Your task to perform on an android device: Open Yahoo.com Image 0: 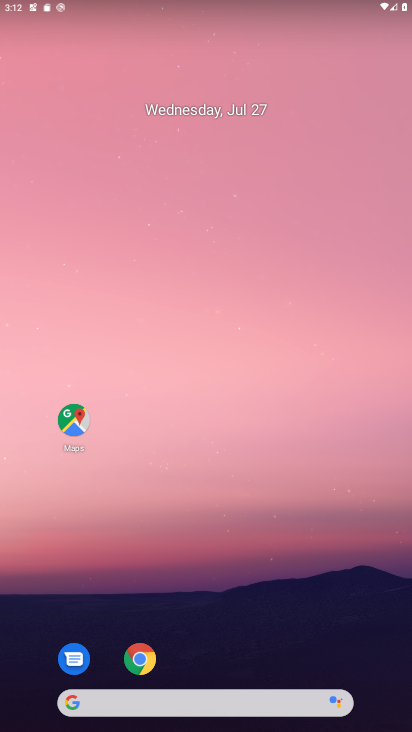
Step 0: drag from (186, 581) to (53, 55)
Your task to perform on an android device: Open Yahoo.com Image 1: 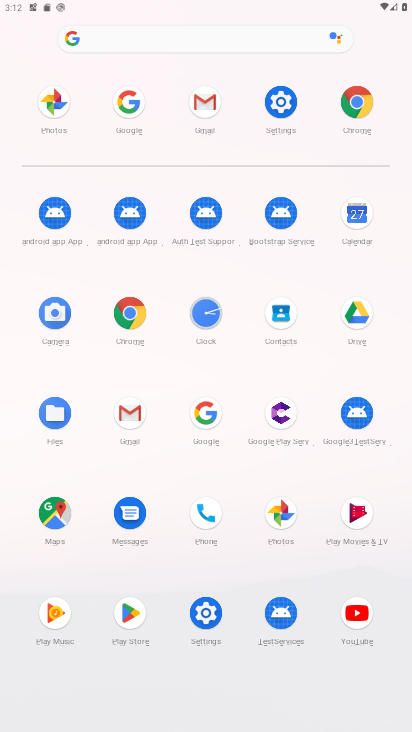
Step 1: click (355, 110)
Your task to perform on an android device: Open Yahoo.com Image 2: 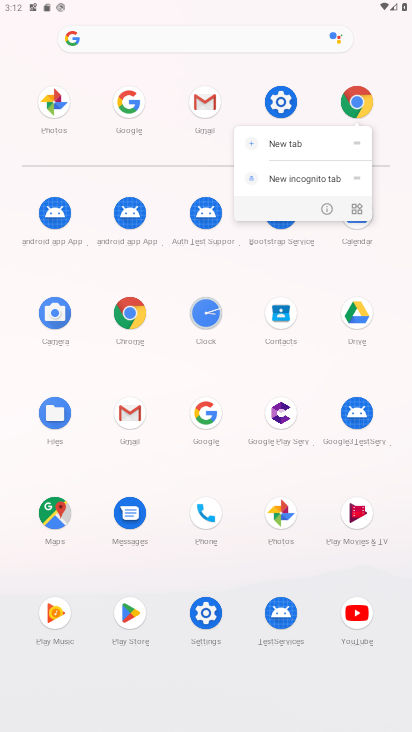
Step 2: click (355, 110)
Your task to perform on an android device: Open Yahoo.com Image 3: 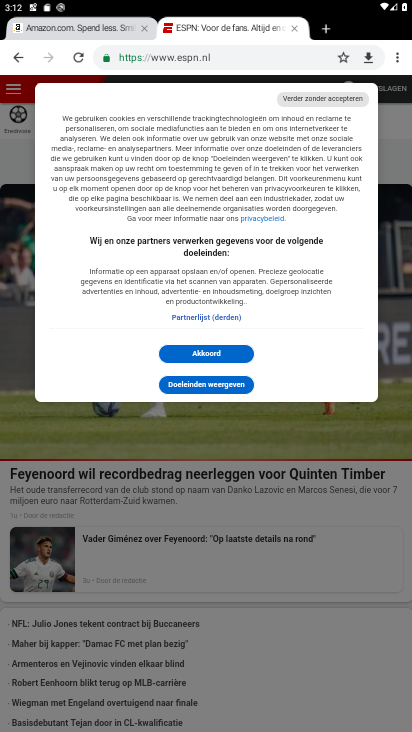
Step 3: click (21, 62)
Your task to perform on an android device: Open Yahoo.com Image 4: 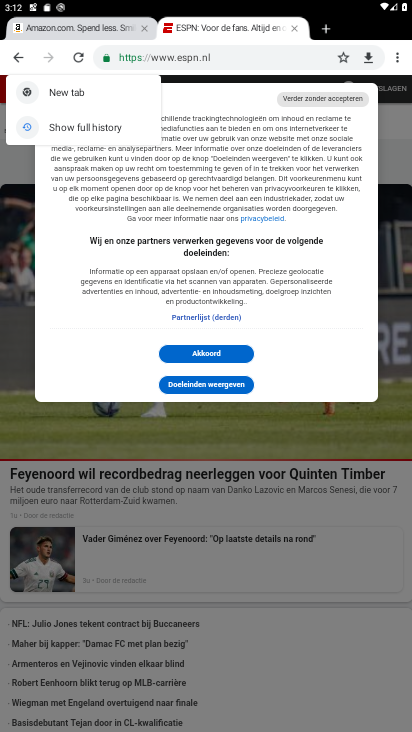
Step 4: click (20, 62)
Your task to perform on an android device: Open Yahoo.com Image 5: 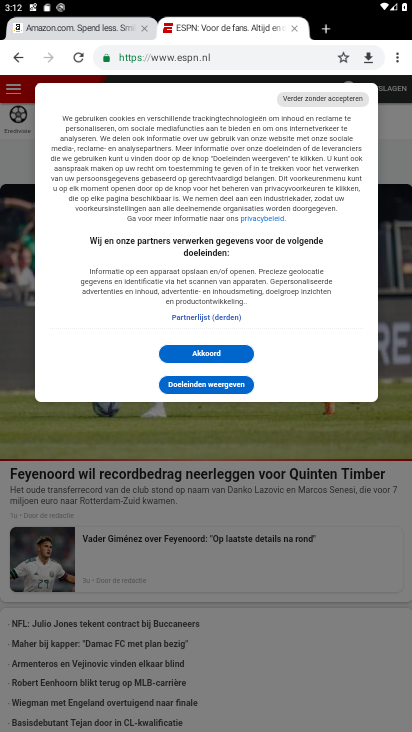
Step 5: click (16, 56)
Your task to perform on an android device: Open Yahoo.com Image 6: 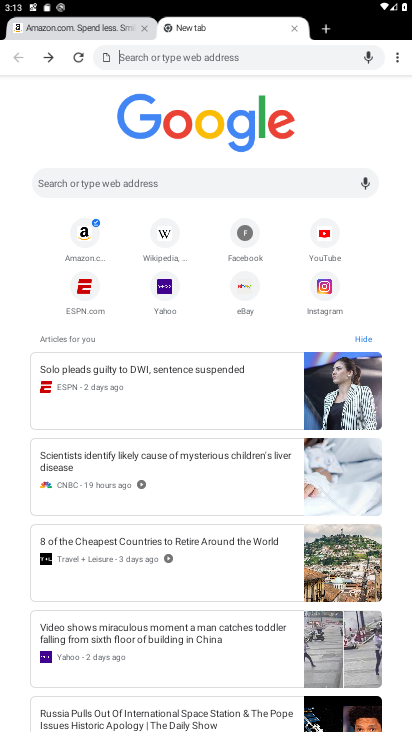
Step 6: click (171, 291)
Your task to perform on an android device: Open Yahoo.com Image 7: 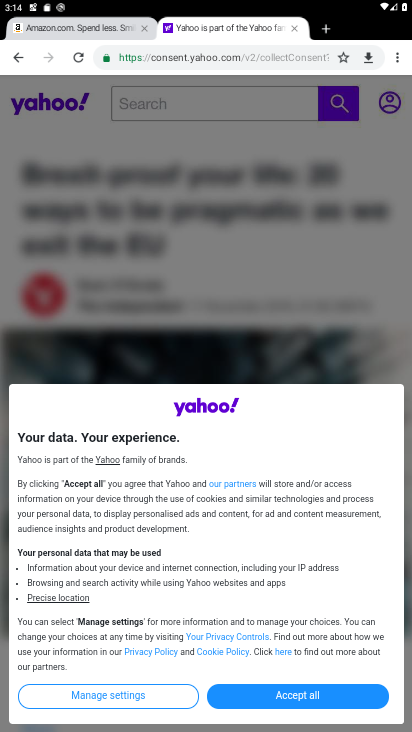
Step 7: task complete